Your task to perform on an android device: What is the news today? Image 0: 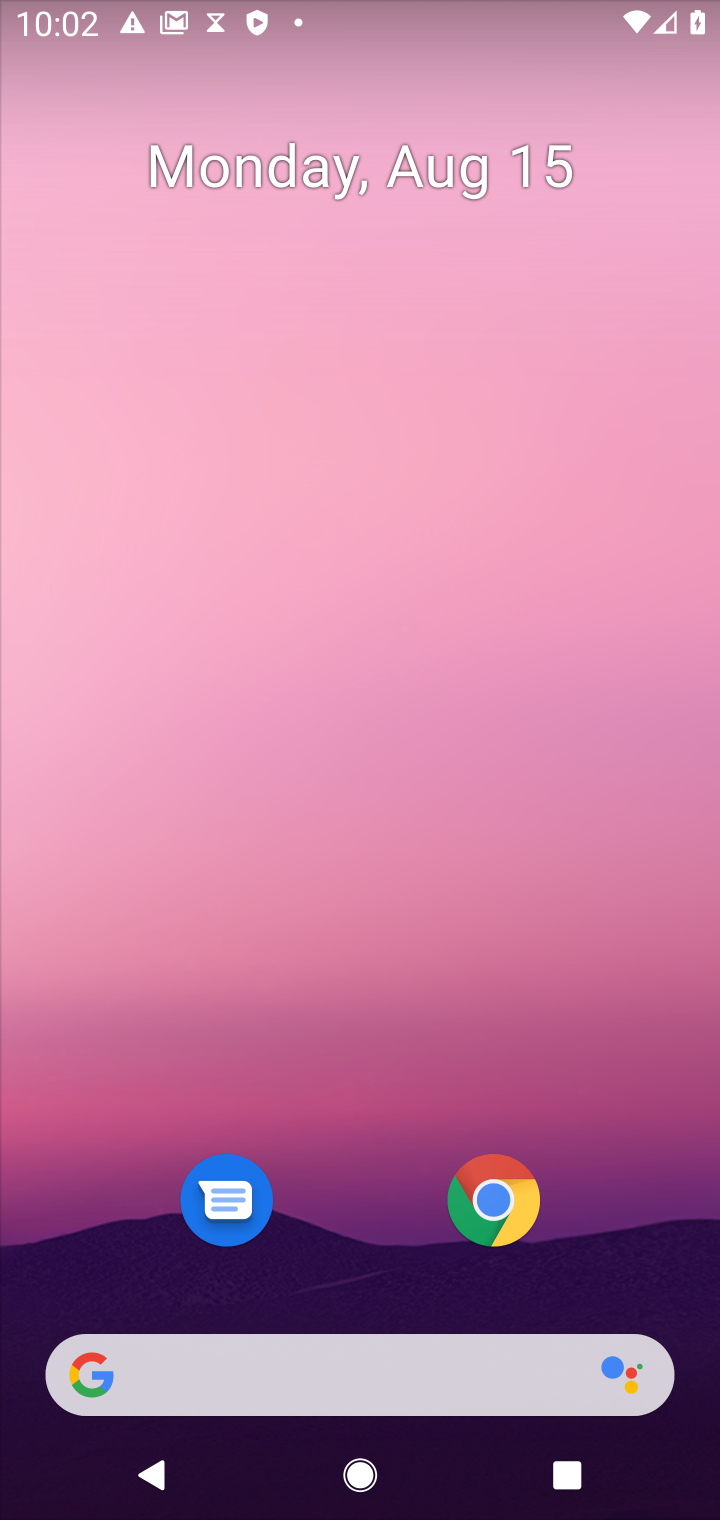
Step 0: drag from (305, 808) to (305, 294)
Your task to perform on an android device: What is the news today? Image 1: 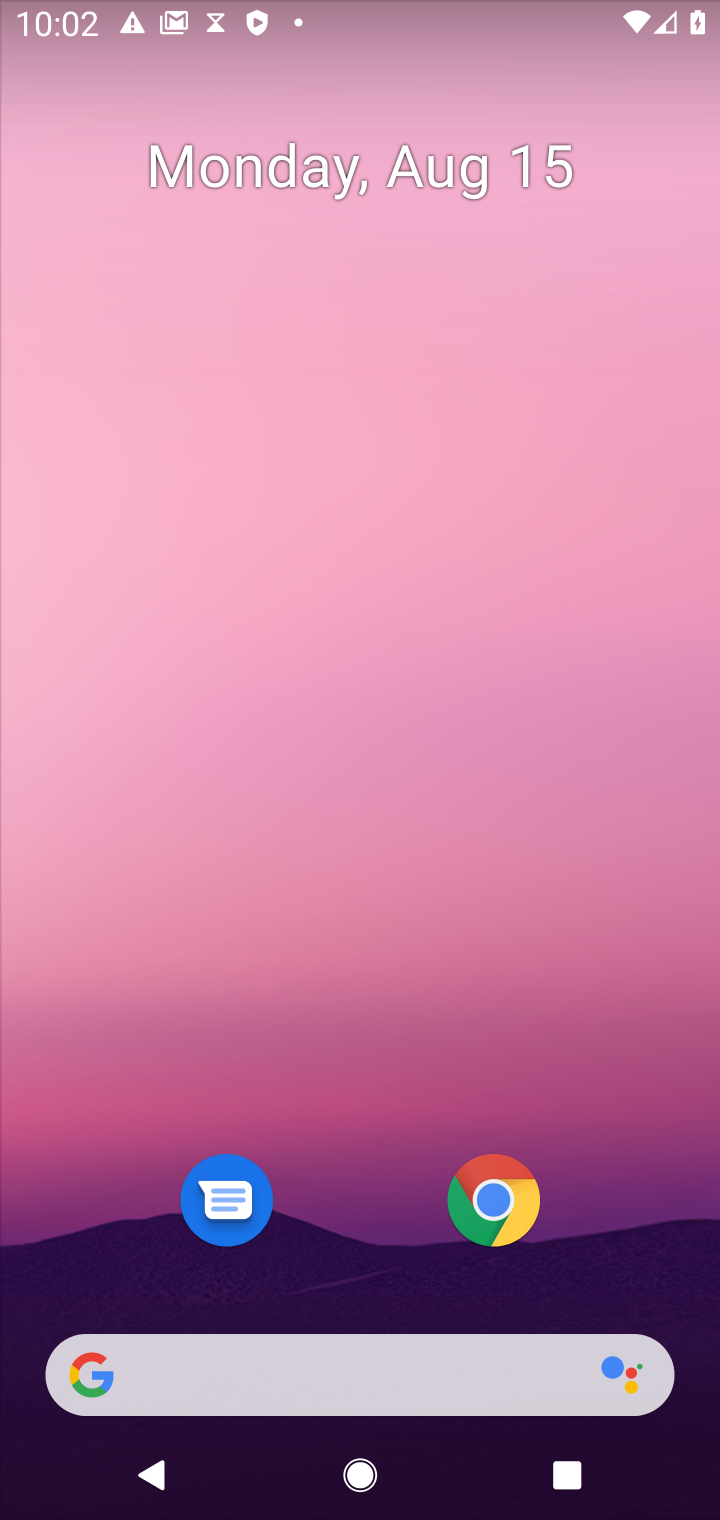
Step 1: drag from (344, 1214) to (338, 225)
Your task to perform on an android device: What is the news today? Image 2: 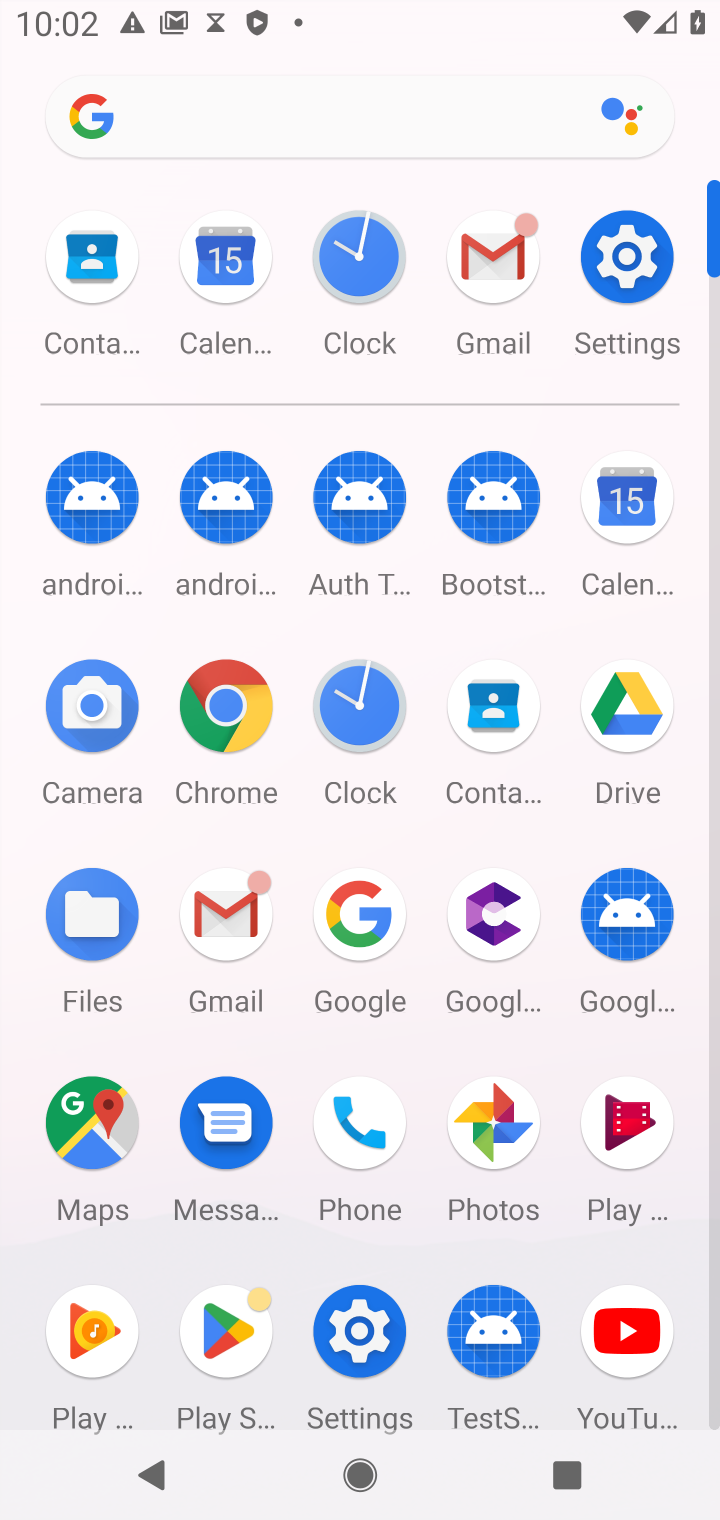
Step 2: click (357, 896)
Your task to perform on an android device: What is the news today? Image 3: 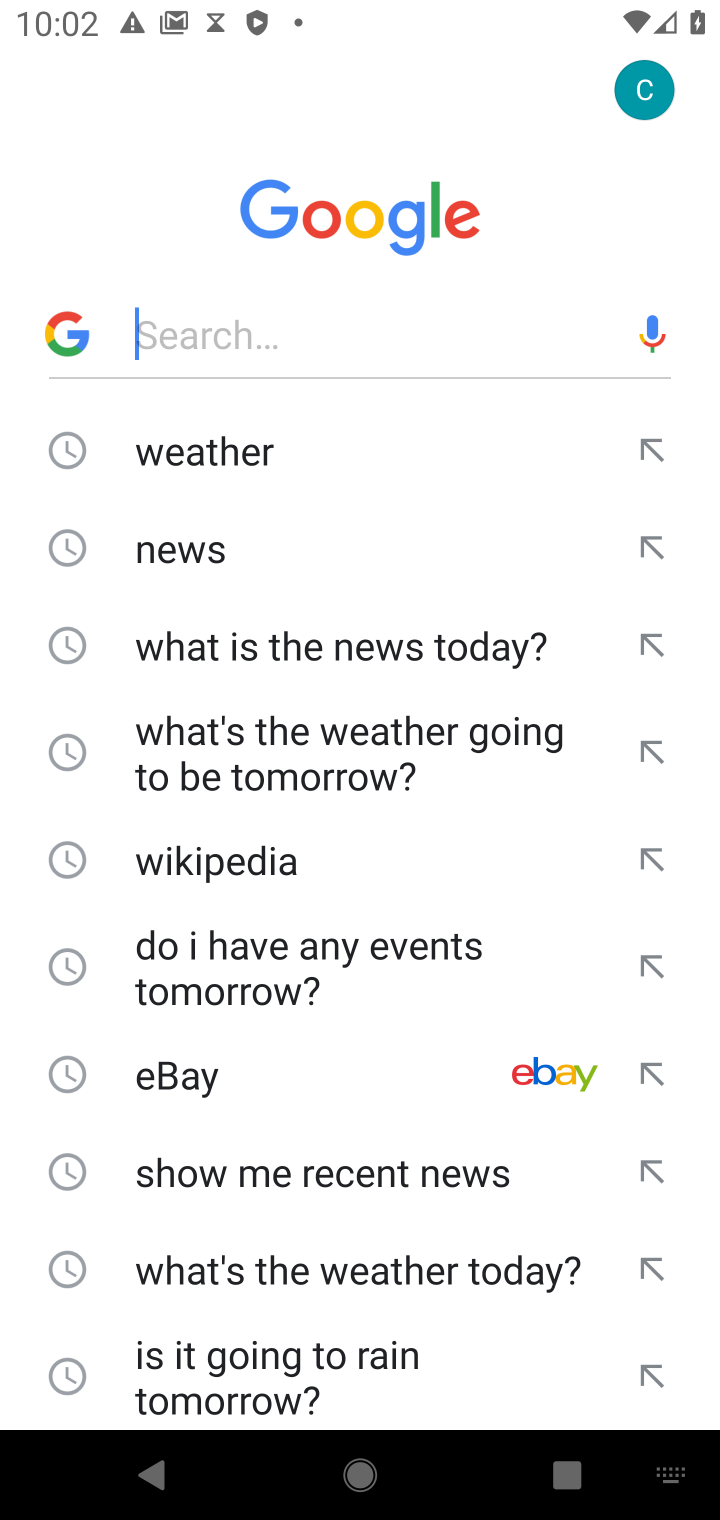
Step 3: click (256, 540)
Your task to perform on an android device: What is the news today? Image 4: 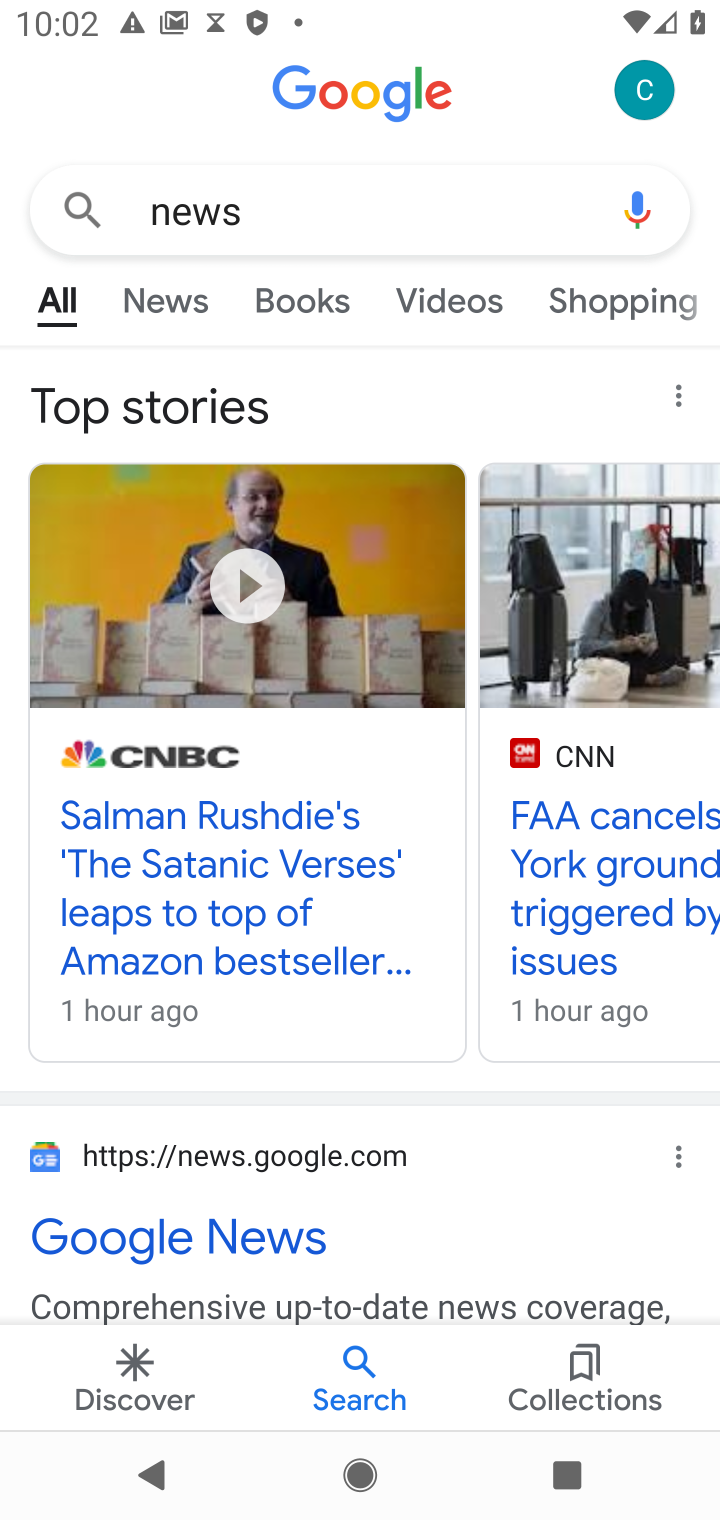
Step 4: click (180, 296)
Your task to perform on an android device: What is the news today? Image 5: 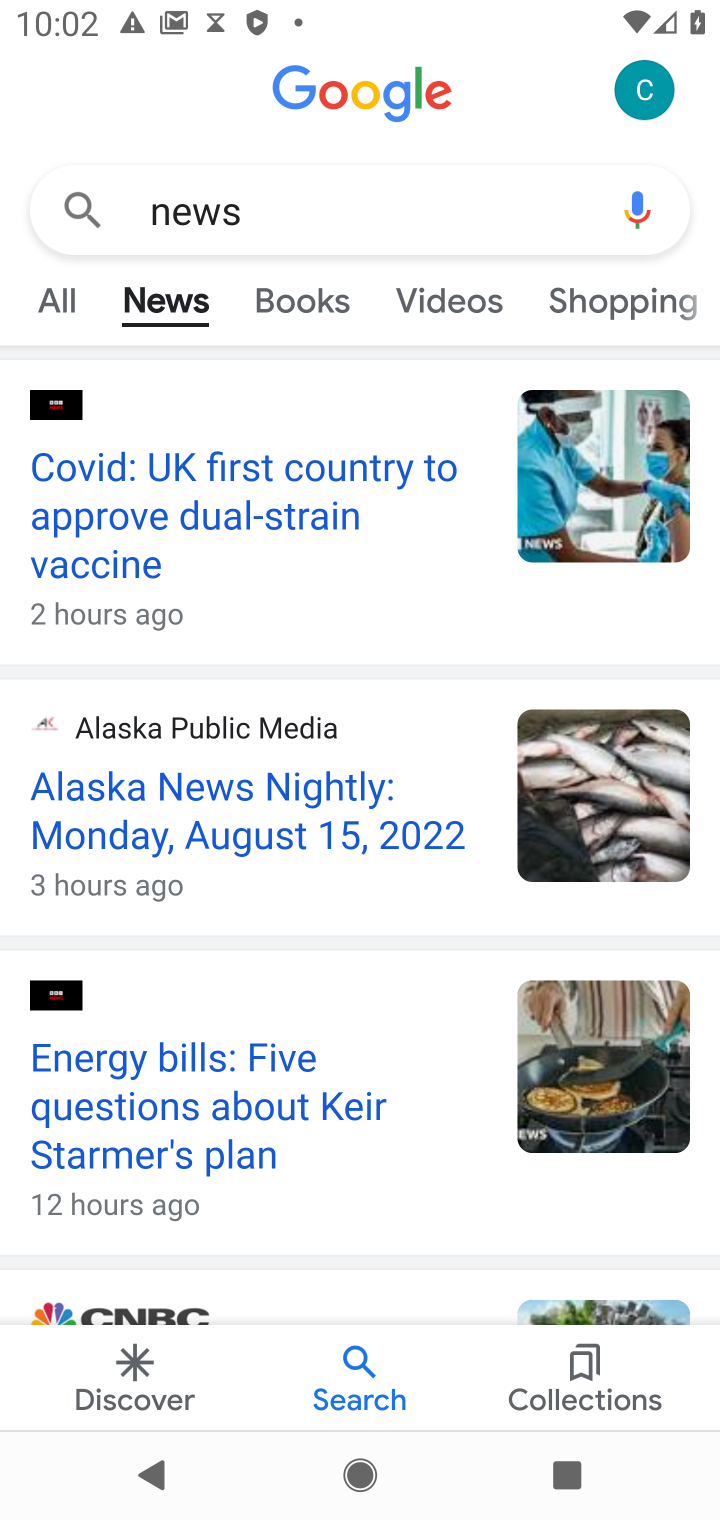
Step 5: task complete